Your task to perform on an android device: toggle data saver in the chrome app Image 0: 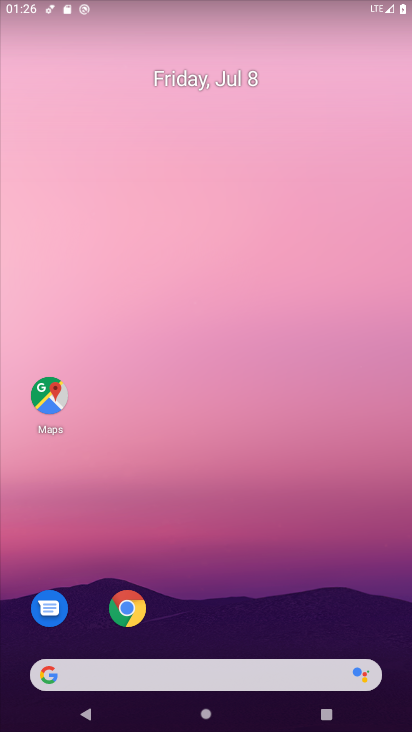
Step 0: drag from (244, 641) to (194, 323)
Your task to perform on an android device: toggle data saver in the chrome app Image 1: 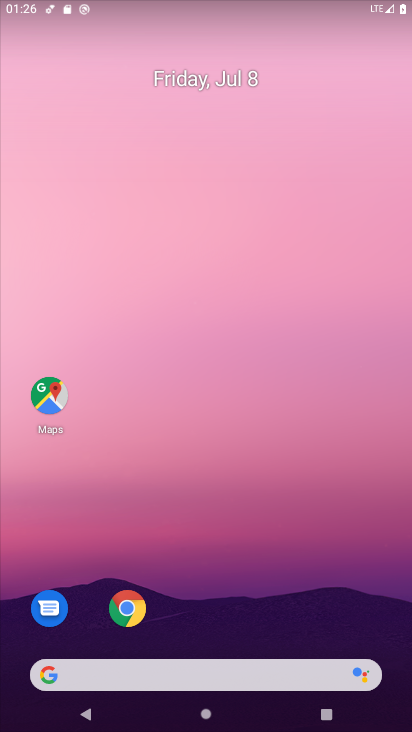
Step 1: click (130, 605)
Your task to perform on an android device: toggle data saver in the chrome app Image 2: 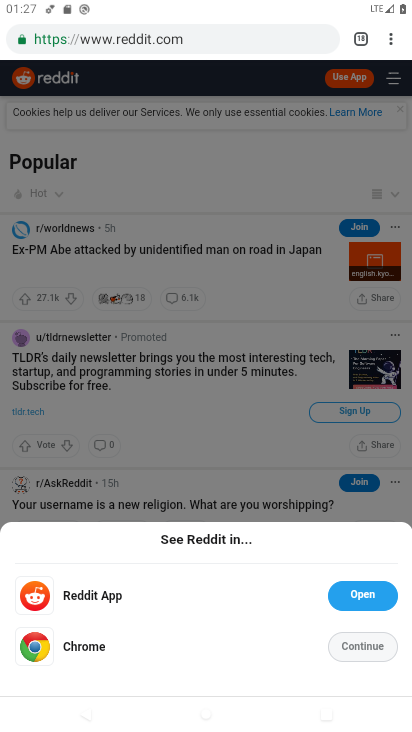
Step 2: click (224, 428)
Your task to perform on an android device: toggle data saver in the chrome app Image 3: 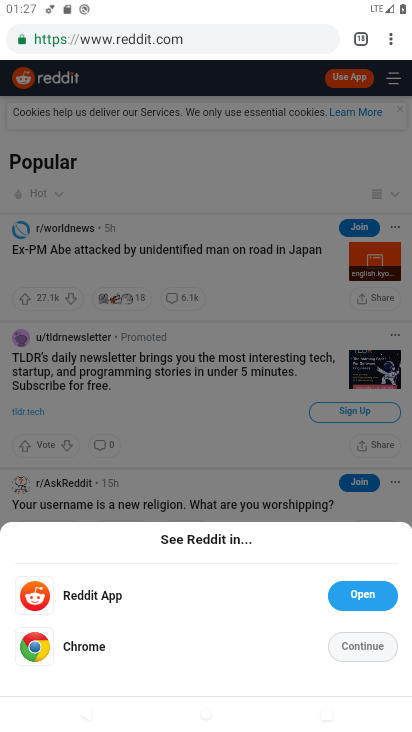
Step 3: click (387, 36)
Your task to perform on an android device: toggle data saver in the chrome app Image 4: 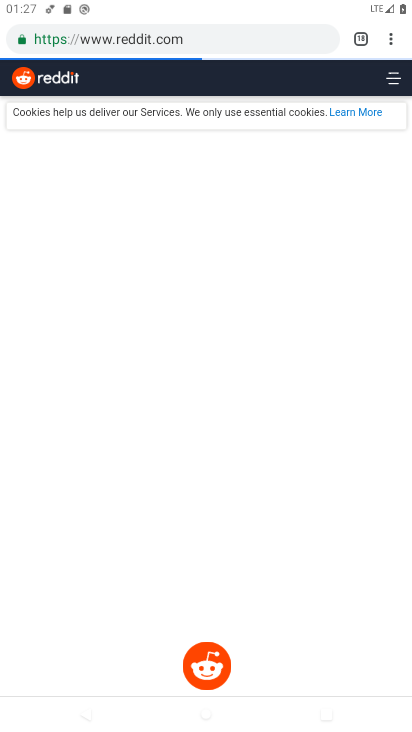
Step 4: click (387, 43)
Your task to perform on an android device: toggle data saver in the chrome app Image 5: 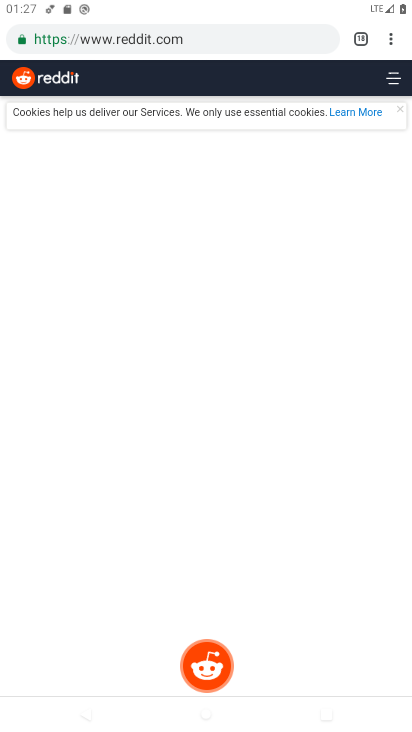
Step 5: click (387, 43)
Your task to perform on an android device: toggle data saver in the chrome app Image 6: 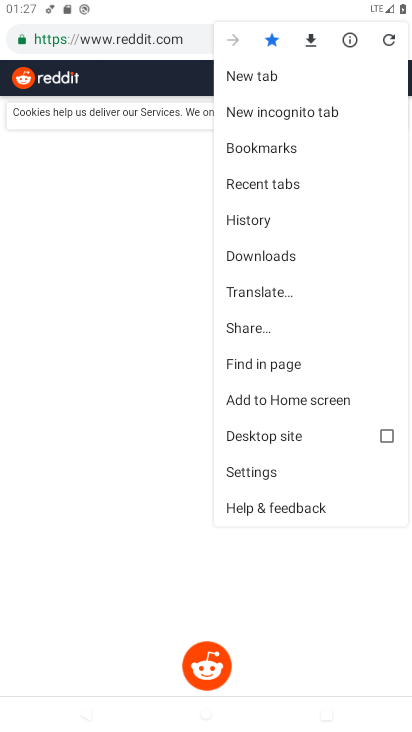
Step 6: click (257, 478)
Your task to perform on an android device: toggle data saver in the chrome app Image 7: 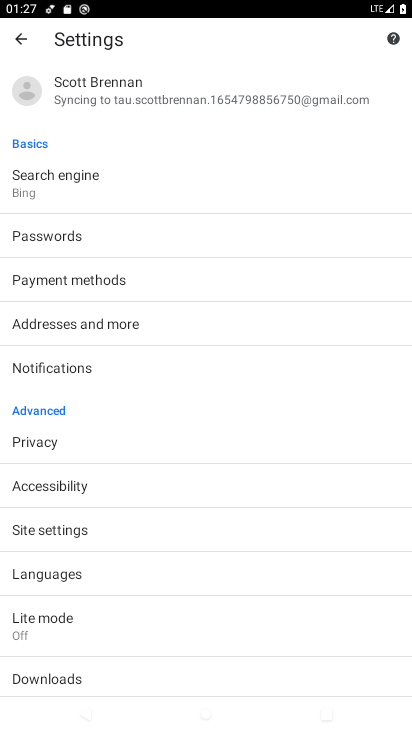
Step 7: click (147, 628)
Your task to perform on an android device: toggle data saver in the chrome app Image 8: 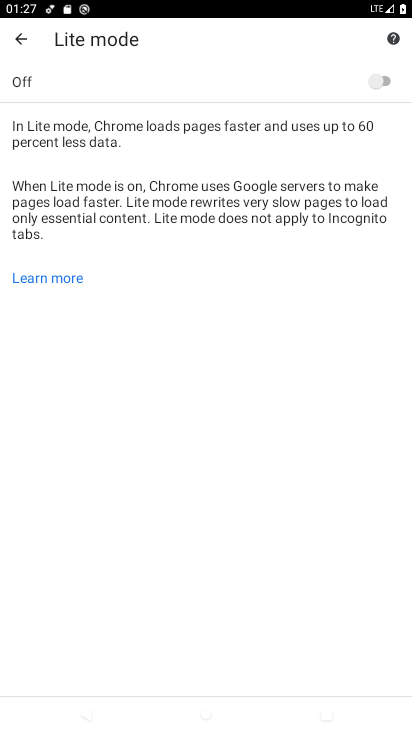
Step 8: click (378, 83)
Your task to perform on an android device: toggle data saver in the chrome app Image 9: 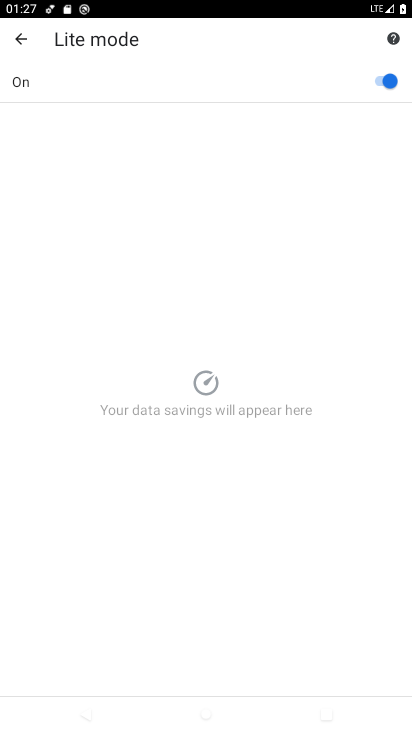
Step 9: task complete